Your task to perform on an android device: toggle data saver in the chrome app Image 0: 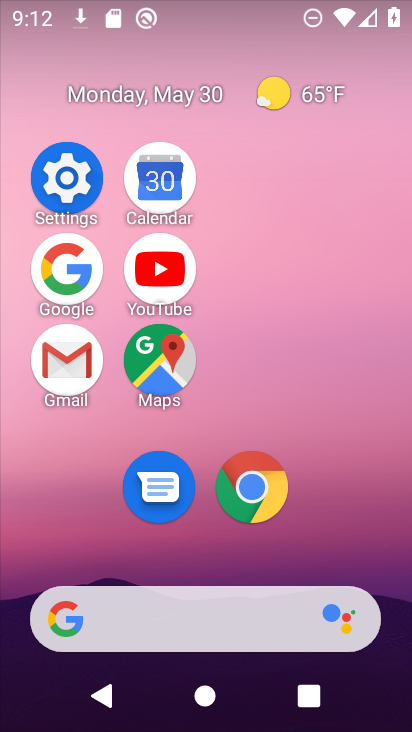
Step 0: click (234, 494)
Your task to perform on an android device: toggle data saver in the chrome app Image 1: 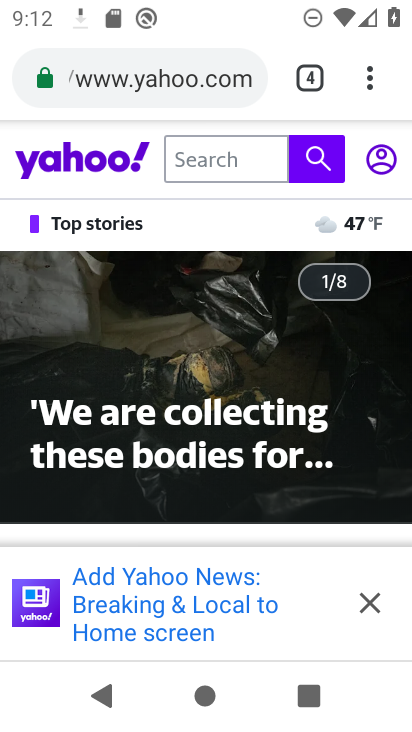
Step 1: click (373, 91)
Your task to perform on an android device: toggle data saver in the chrome app Image 2: 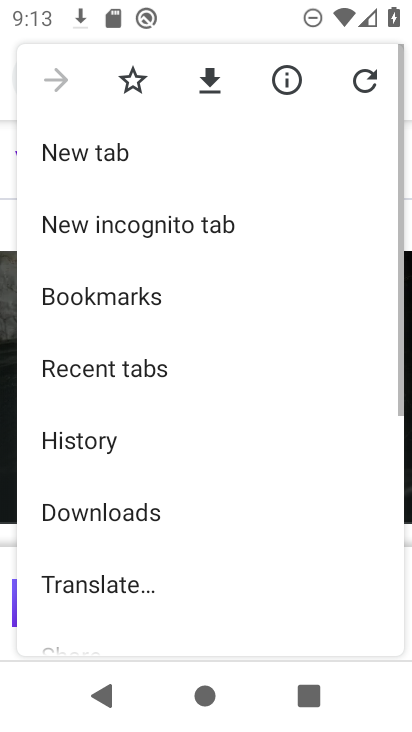
Step 2: drag from (287, 540) to (256, 159)
Your task to perform on an android device: toggle data saver in the chrome app Image 3: 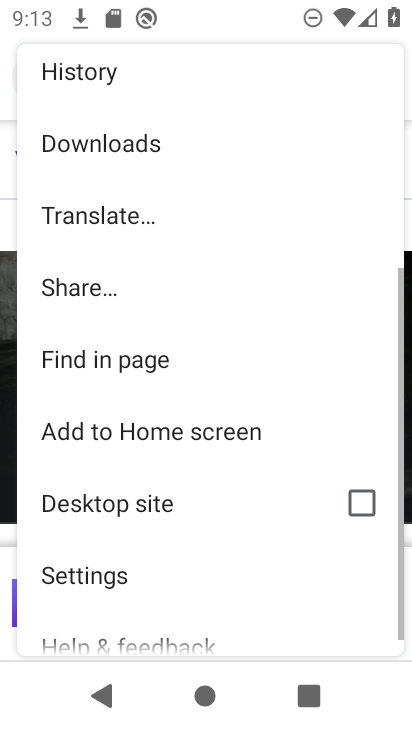
Step 3: click (140, 577)
Your task to perform on an android device: toggle data saver in the chrome app Image 4: 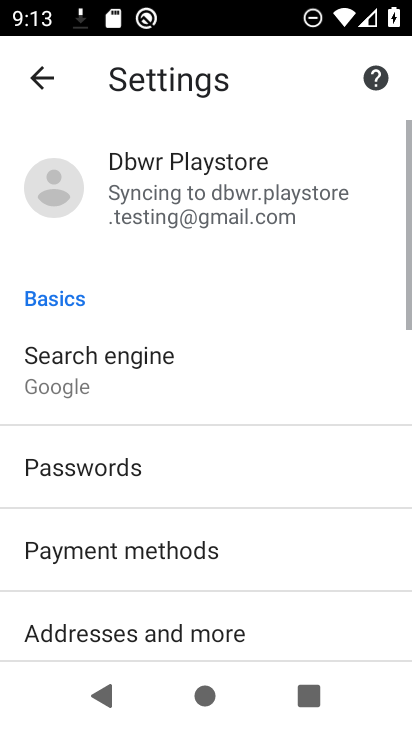
Step 4: drag from (140, 578) to (173, 185)
Your task to perform on an android device: toggle data saver in the chrome app Image 5: 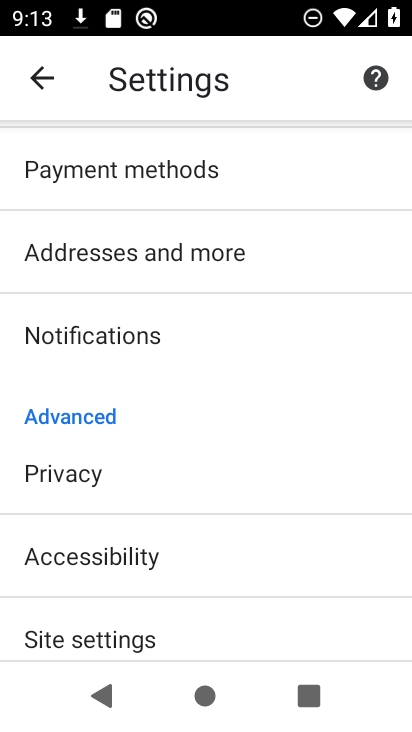
Step 5: drag from (251, 533) to (255, 126)
Your task to perform on an android device: toggle data saver in the chrome app Image 6: 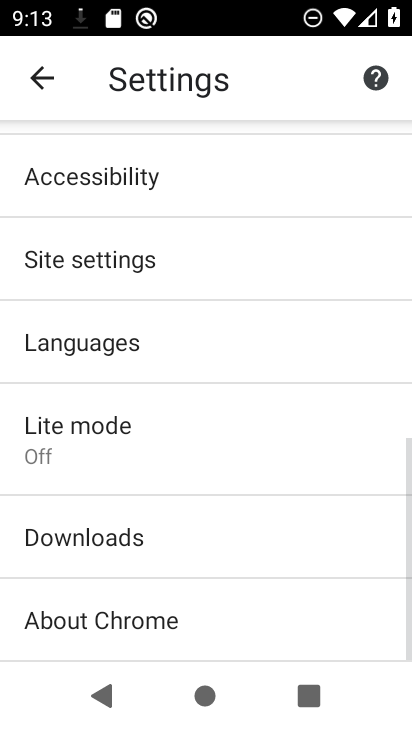
Step 6: click (197, 417)
Your task to perform on an android device: toggle data saver in the chrome app Image 7: 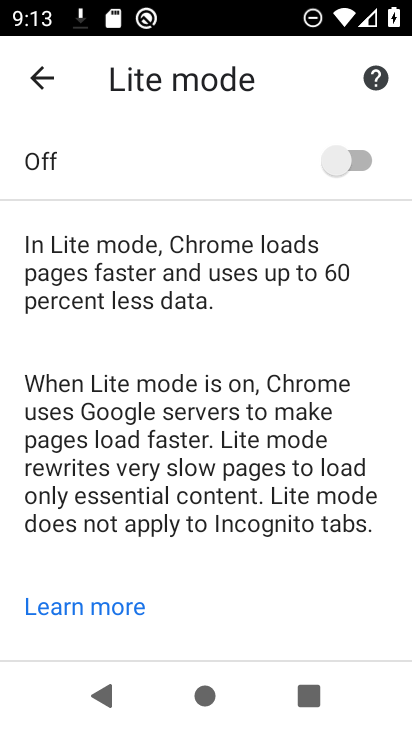
Step 7: click (346, 174)
Your task to perform on an android device: toggle data saver in the chrome app Image 8: 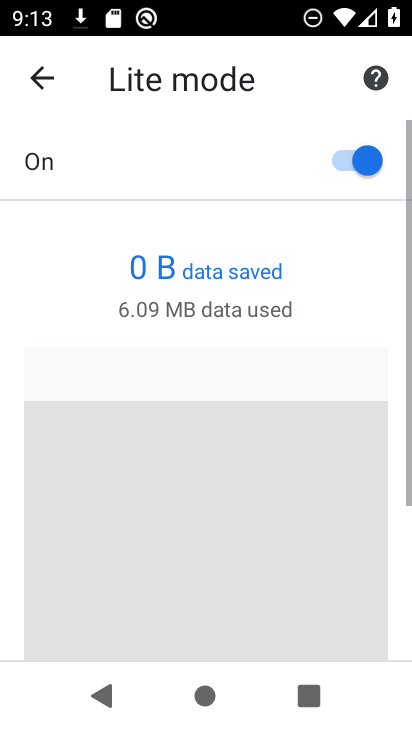
Step 8: task complete